Your task to perform on an android device: check storage Image 0: 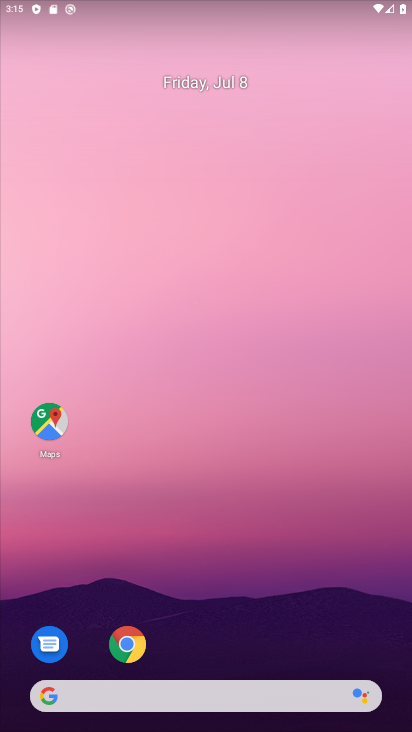
Step 0: drag from (203, 434) to (191, 314)
Your task to perform on an android device: check storage Image 1: 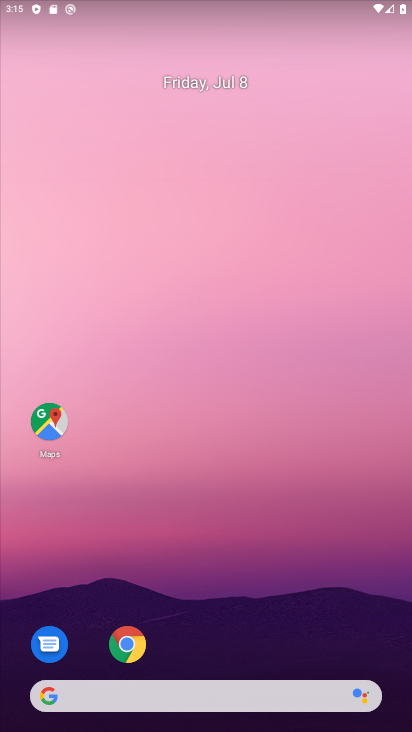
Step 1: drag from (161, 294) to (142, 177)
Your task to perform on an android device: check storage Image 2: 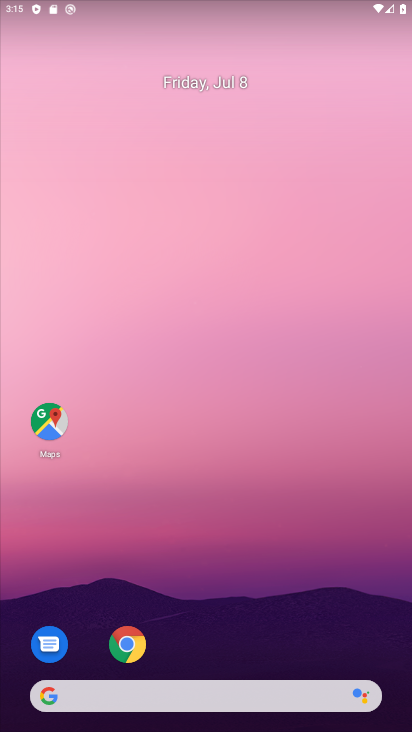
Step 2: click (171, 40)
Your task to perform on an android device: check storage Image 3: 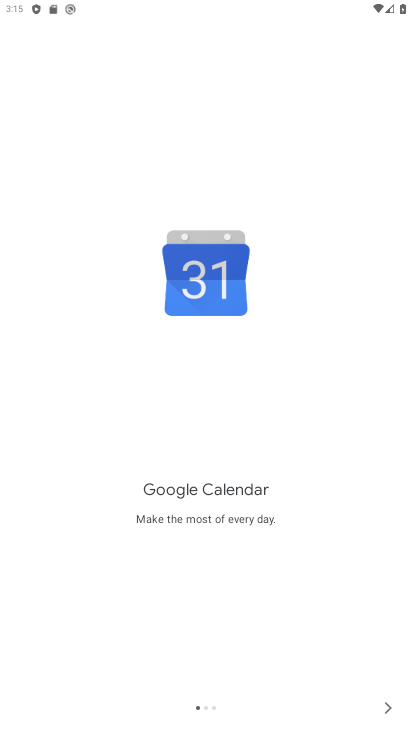
Step 3: drag from (206, 578) to (167, 308)
Your task to perform on an android device: check storage Image 4: 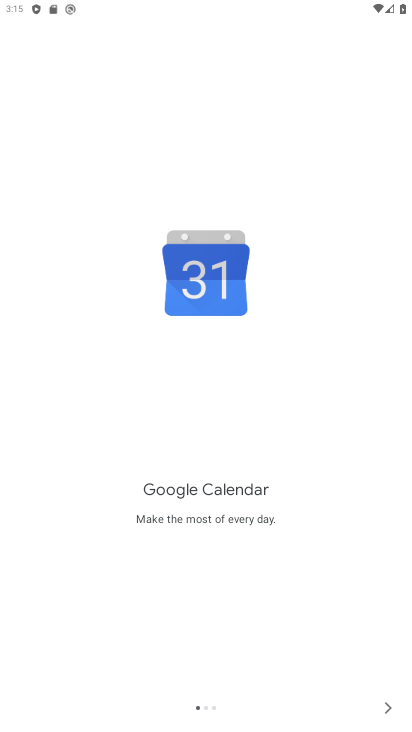
Step 4: drag from (193, 598) to (149, 132)
Your task to perform on an android device: check storage Image 5: 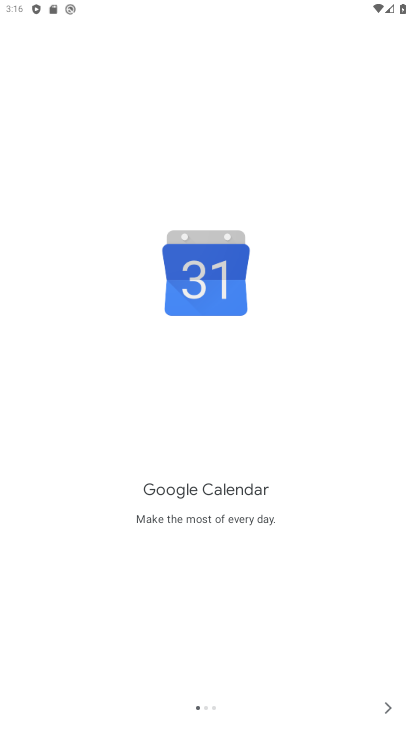
Step 5: press back button
Your task to perform on an android device: check storage Image 6: 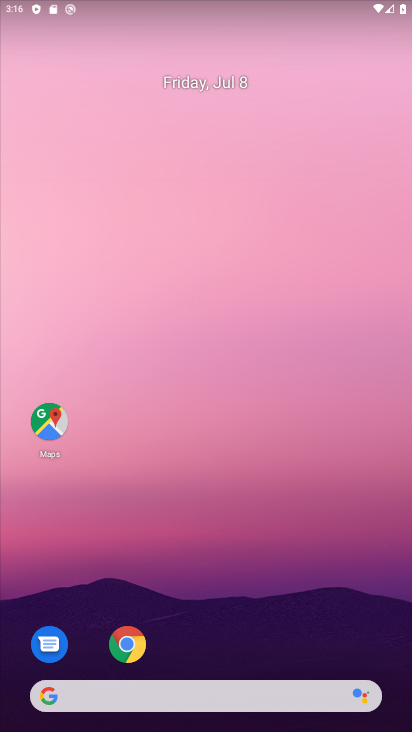
Step 6: click (399, 722)
Your task to perform on an android device: check storage Image 7: 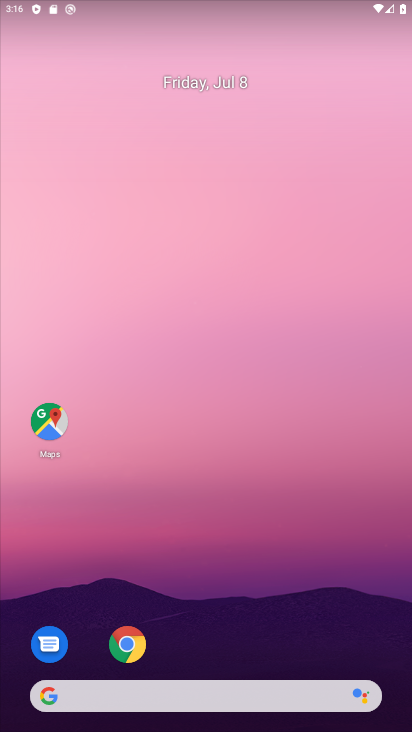
Step 7: click (155, 169)
Your task to perform on an android device: check storage Image 8: 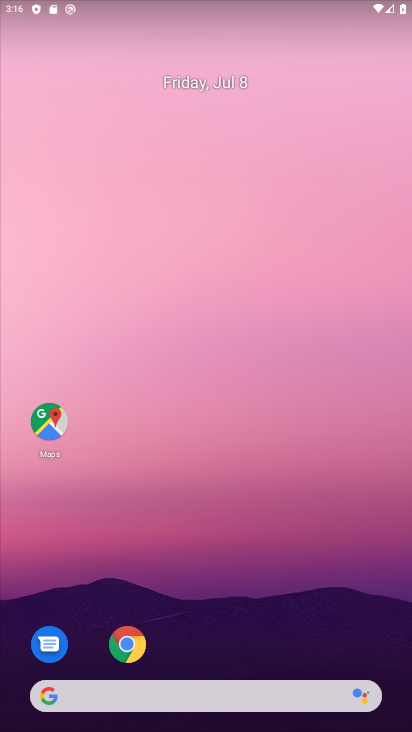
Step 8: drag from (232, 669) to (159, 239)
Your task to perform on an android device: check storage Image 9: 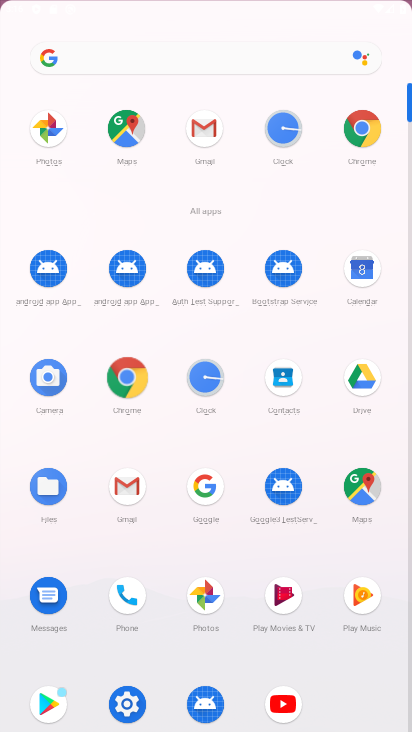
Step 9: drag from (266, 580) to (227, 204)
Your task to perform on an android device: check storage Image 10: 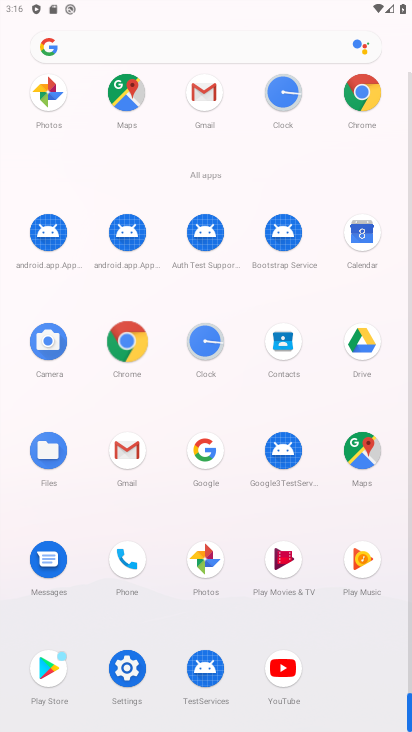
Step 10: click (120, 673)
Your task to perform on an android device: check storage Image 11: 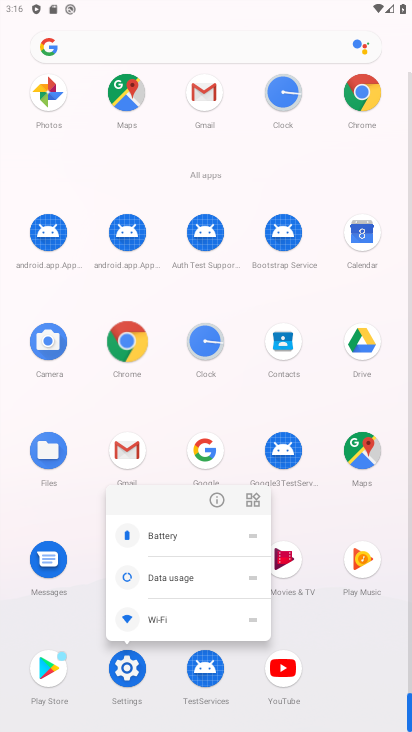
Step 11: click (121, 672)
Your task to perform on an android device: check storage Image 12: 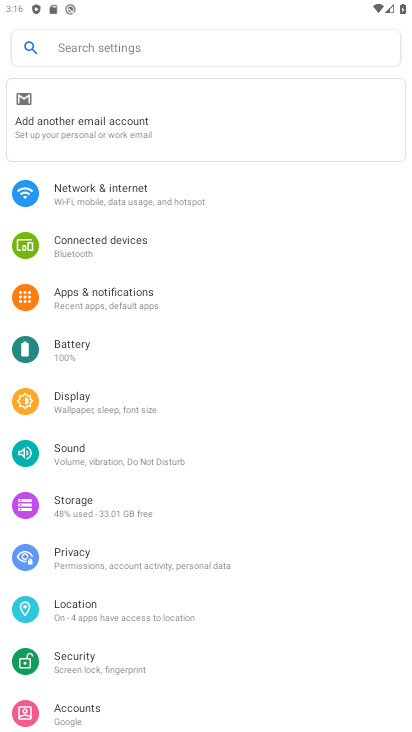
Step 12: click (84, 507)
Your task to perform on an android device: check storage Image 13: 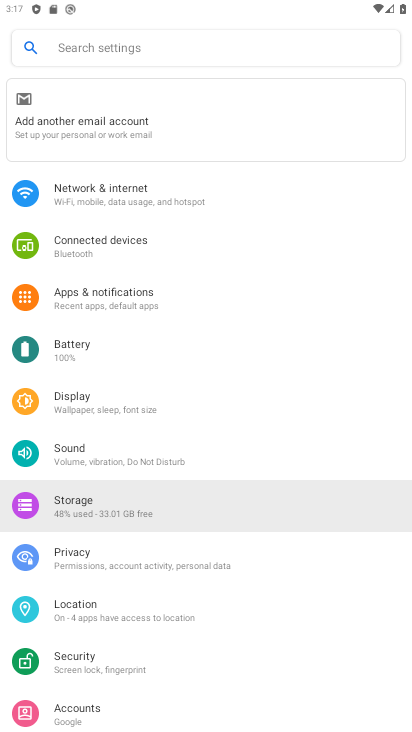
Step 13: click (86, 508)
Your task to perform on an android device: check storage Image 14: 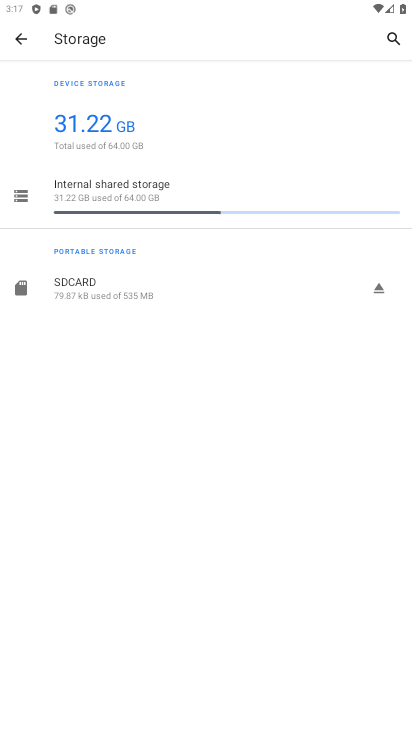
Step 14: click (80, 507)
Your task to perform on an android device: check storage Image 15: 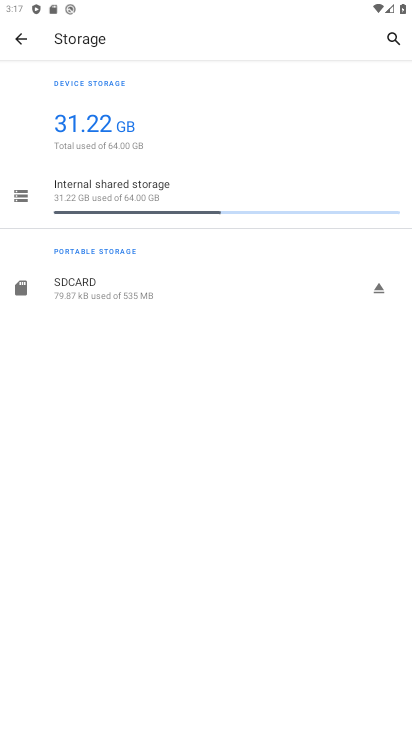
Step 15: task complete